Your task to perform on an android device: Open Yahoo.com Image 0: 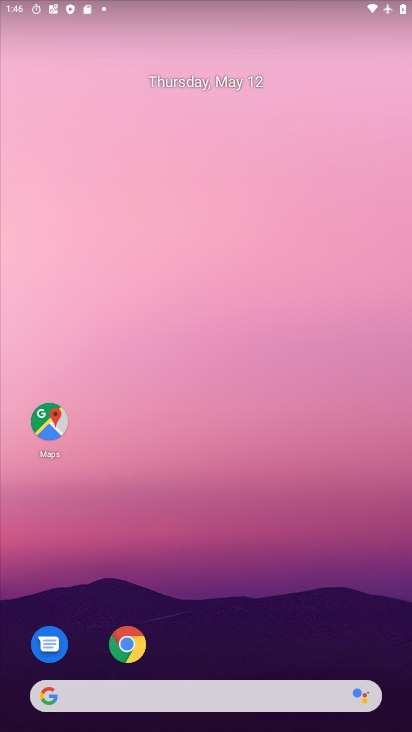
Step 0: click (136, 648)
Your task to perform on an android device: Open Yahoo.com Image 1: 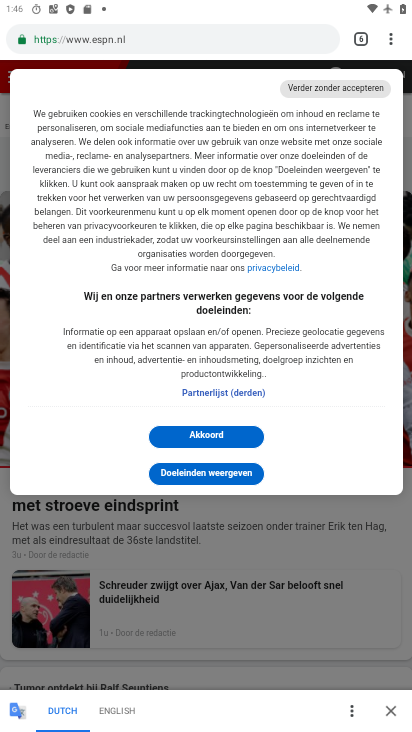
Step 1: click (356, 36)
Your task to perform on an android device: Open Yahoo.com Image 2: 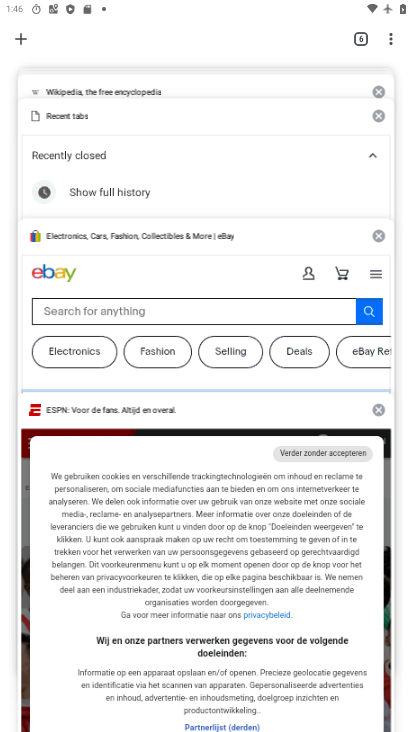
Step 2: click (24, 40)
Your task to perform on an android device: Open Yahoo.com Image 3: 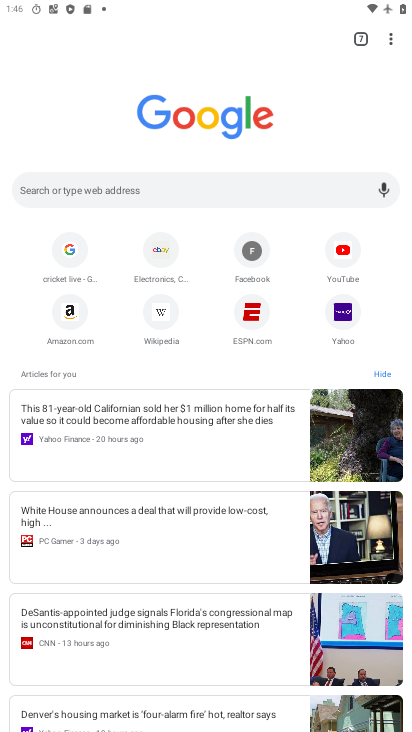
Step 3: click (345, 306)
Your task to perform on an android device: Open Yahoo.com Image 4: 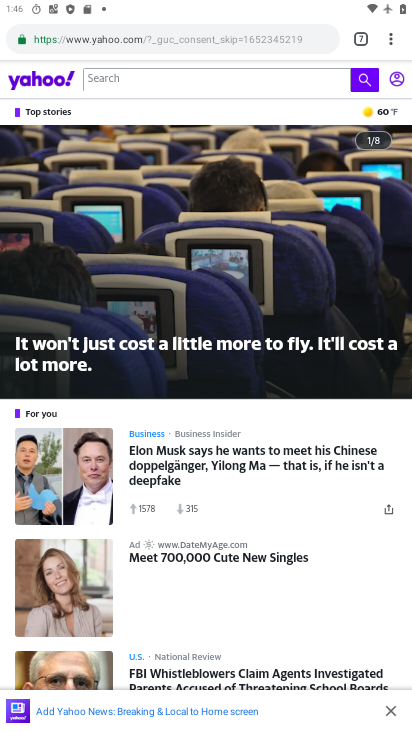
Step 4: task complete